Your task to perform on an android device: turn on translation in the chrome app Image 0: 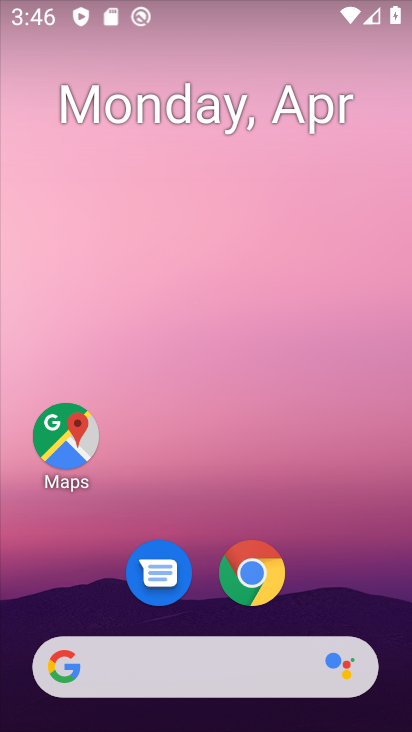
Step 0: drag from (360, 596) to (368, 95)
Your task to perform on an android device: turn on translation in the chrome app Image 1: 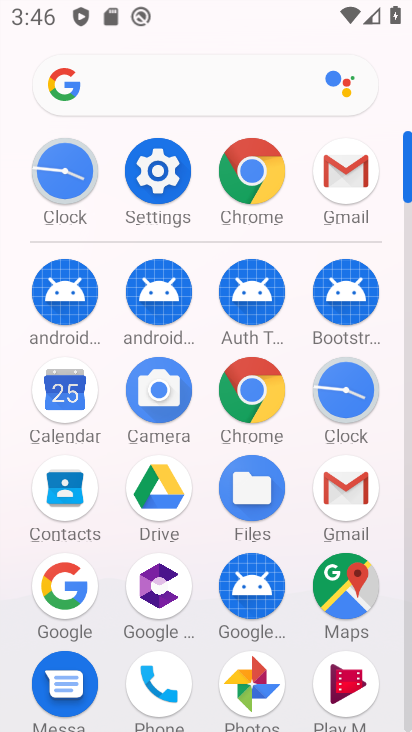
Step 1: click (266, 397)
Your task to perform on an android device: turn on translation in the chrome app Image 2: 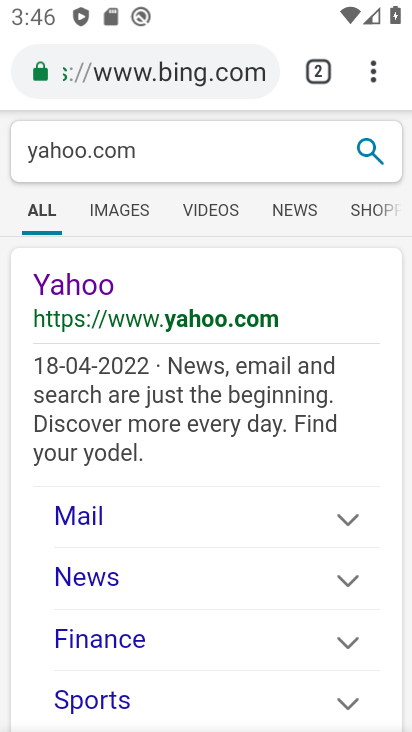
Step 2: click (375, 77)
Your task to perform on an android device: turn on translation in the chrome app Image 3: 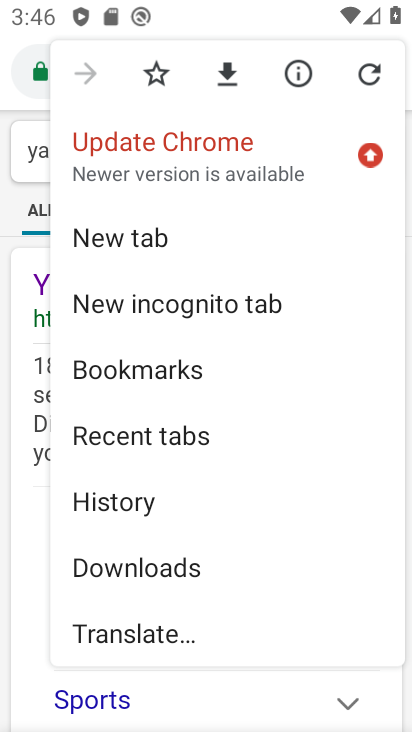
Step 3: drag from (278, 533) to (274, 382)
Your task to perform on an android device: turn on translation in the chrome app Image 4: 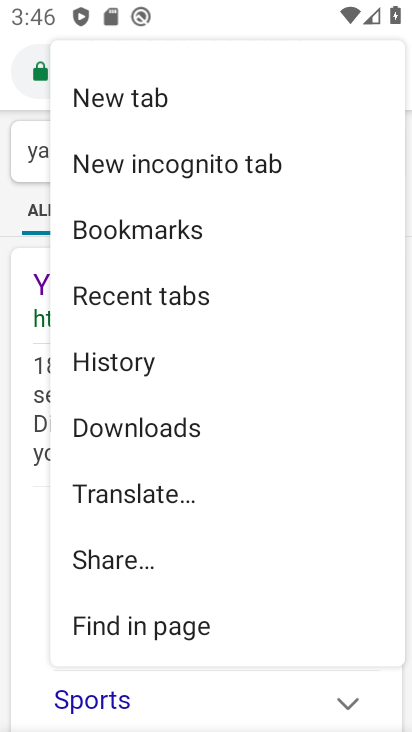
Step 4: drag from (265, 576) to (267, 371)
Your task to perform on an android device: turn on translation in the chrome app Image 5: 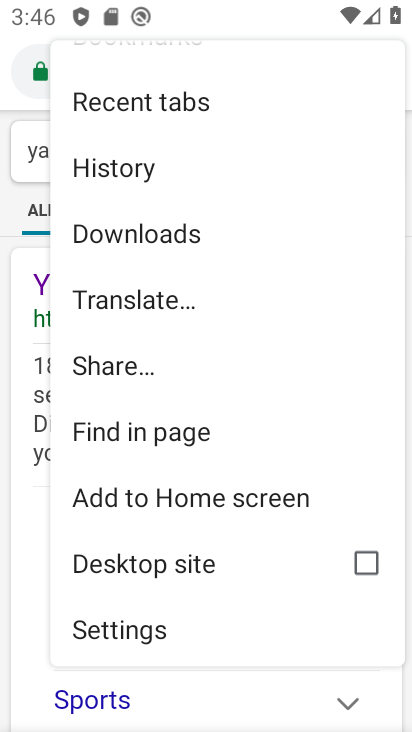
Step 5: drag from (261, 605) to (273, 360)
Your task to perform on an android device: turn on translation in the chrome app Image 6: 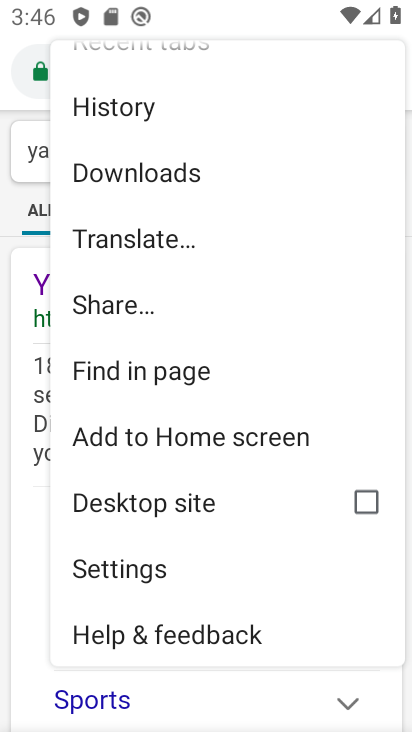
Step 6: click (146, 564)
Your task to perform on an android device: turn on translation in the chrome app Image 7: 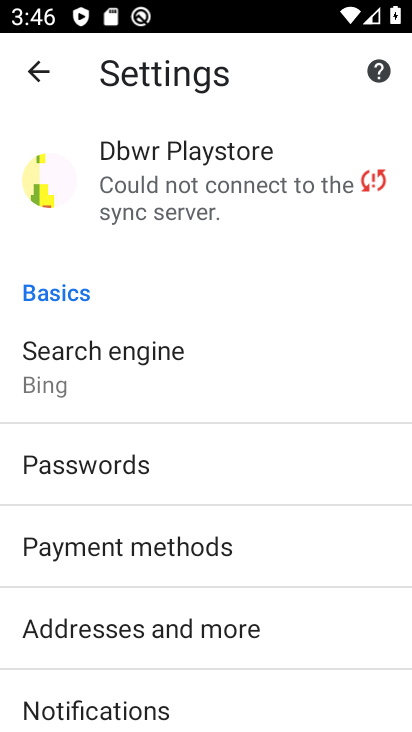
Step 7: drag from (324, 619) to (327, 480)
Your task to perform on an android device: turn on translation in the chrome app Image 8: 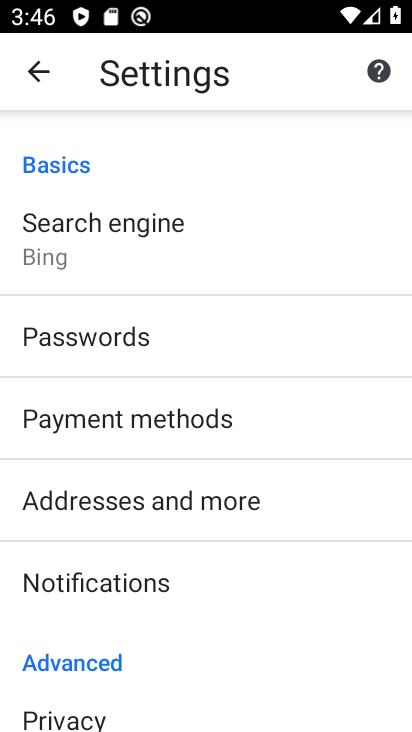
Step 8: drag from (307, 595) to (311, 424)
Your task to perform on an android device: turn on translation in the chrome app Image 9: 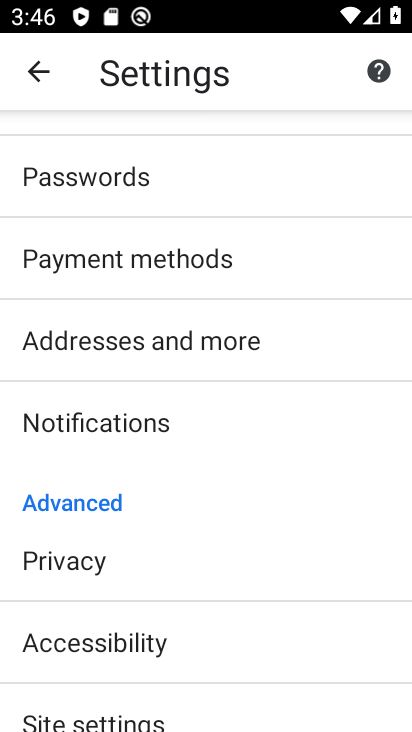
Step 9: drag from (298, 651) to (314, 489)
Your task to perform on an android device: turn on translation in the chrome app Image 10: 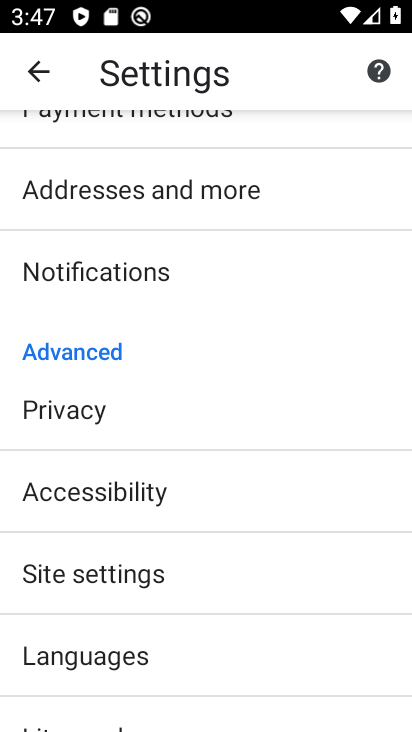
Step 10: drag from (277, 643) to (286, 462)
Your task to perform on an android device: turn on translation in the chrome app Image 11: 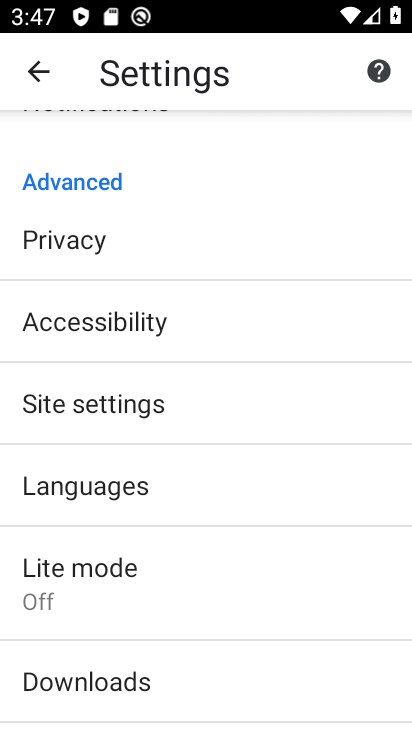
Step 11: drag from (291, 667) to (289, 497)
Your task to perform on an android device: turn on translation in the chrome app Image 12: 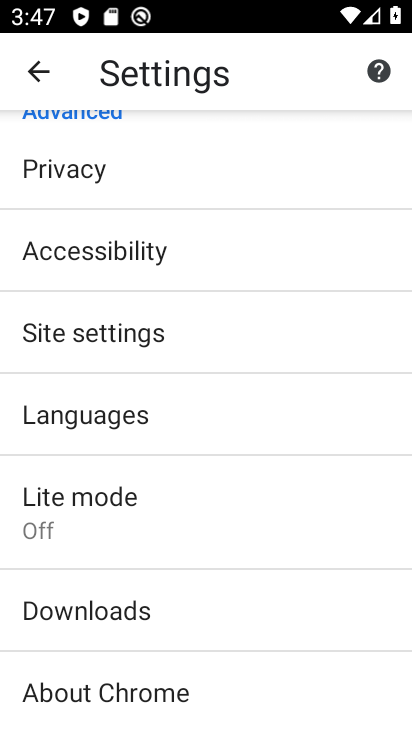
Step 12: click (254, 426)
Your task to perform on an android device: turn on translation in the chrome app Image 13: 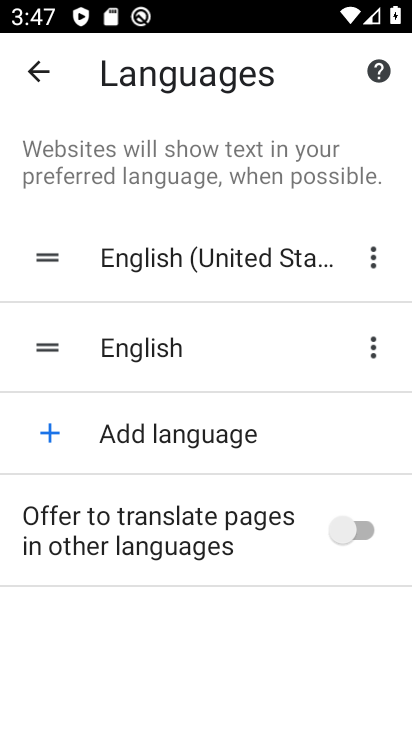
Step 13: click (358, 534)
Your task to perform on an android device: turn on translation in the chrome app Image 14: 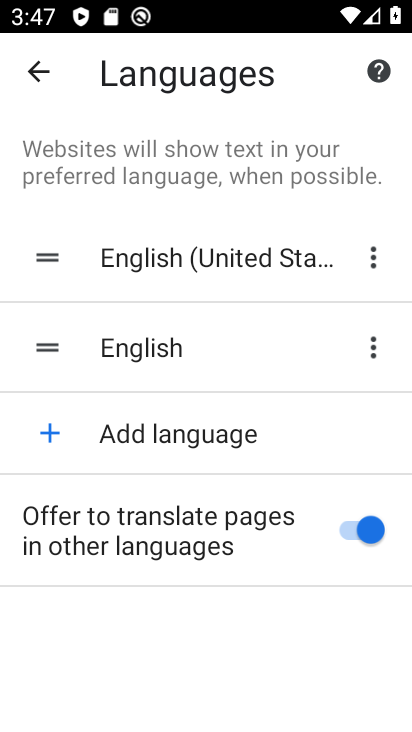
Step 14: task complete